Your task to perform on an android device: open the mobile data screen to see how much data has been used Image 0: 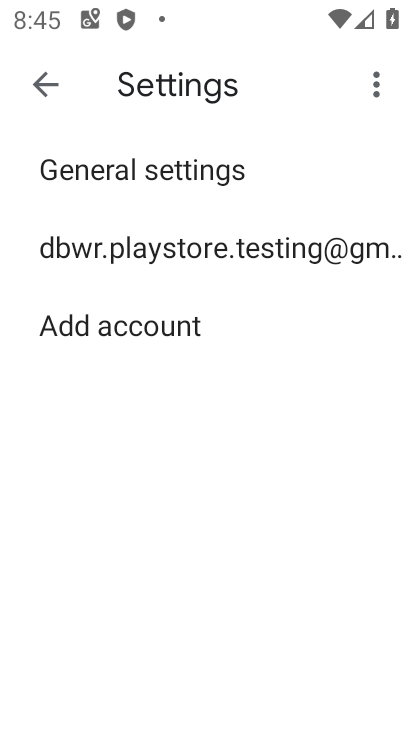
Step 0: press home button
Your task to perform on an android device: open the mobile data screen to see how much data has been used Image 1: 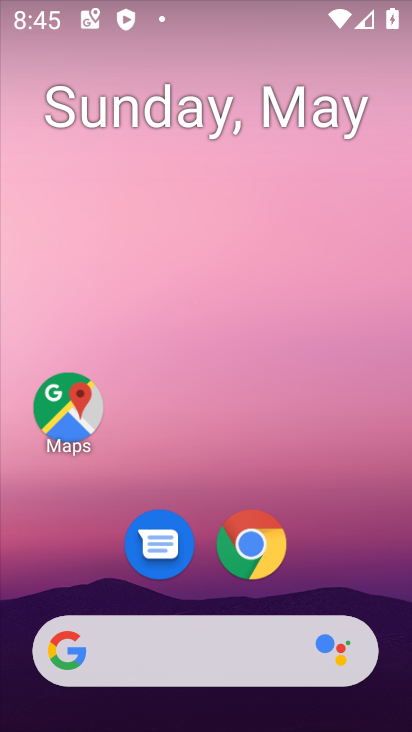
Step 1: drag from (332, 452) to (274, 17)
Your task to perform on an android device: open the mobile data screen to see how much data has been used Image 2: 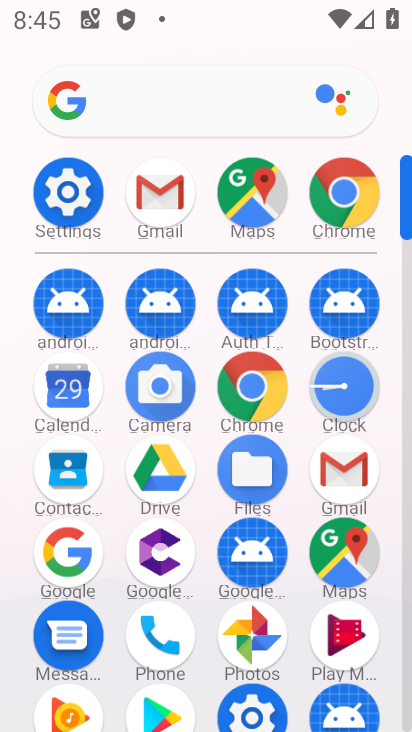
Step 2: click (55, 186)
Your task to perform on an android device: open the mobile data screen to see how much data has been used Image 3: 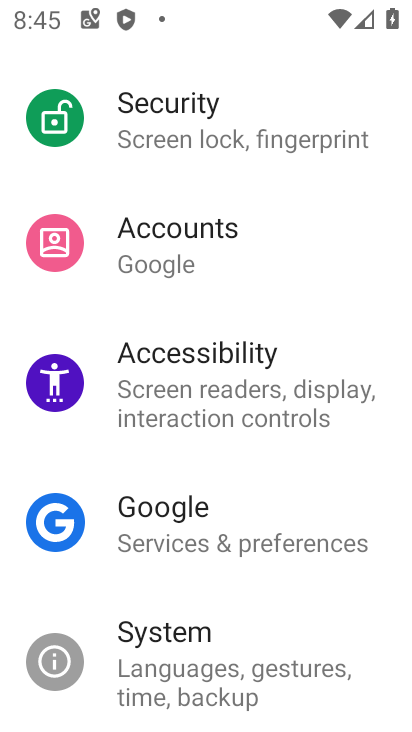
Step 3: drag from (173, 596) to (190, 652)
Your task to perform on an android device: open the mobile data screen to see how much data has been used Image 4: 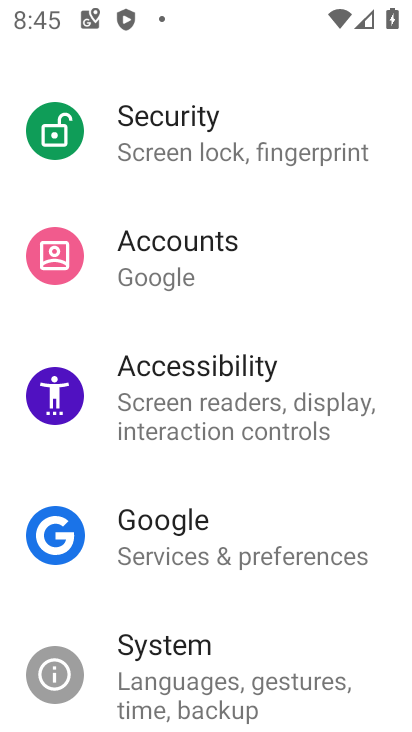
Step 4: drag from (282, 160) to (271, 712)
Your task to perform on an android device: open the mobile data screen to see how much data has been used Image 5: 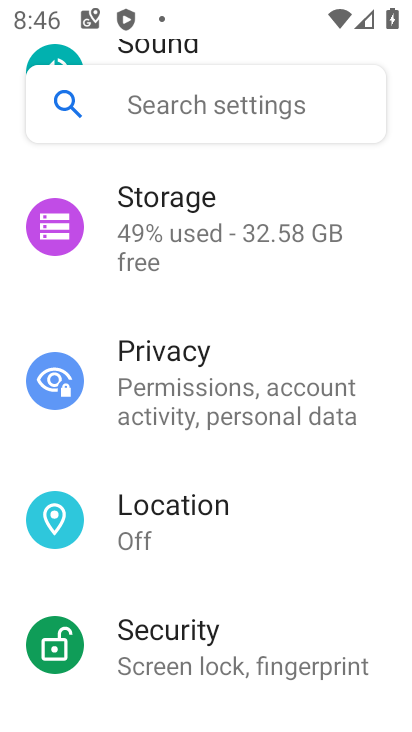
Step 5: drag from (208, 166) to (189, 697)
Your task to perform on an android device: open the mobile data screen to see how much data has been used Image 6: 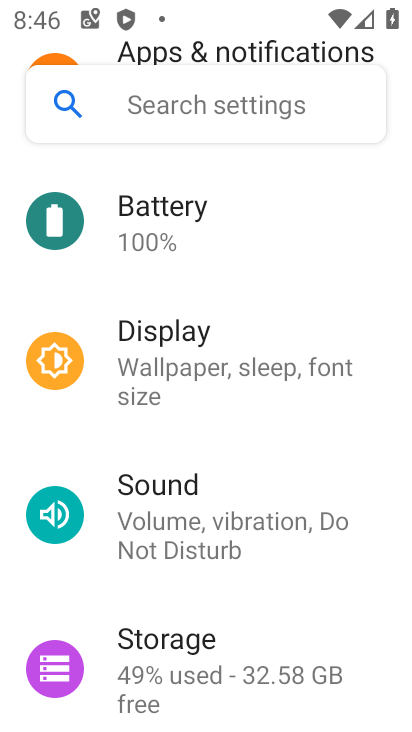
Step 6: drag from (210, 312) to (178, 691)
Your task to perform on an android device: open the mobile data screen to see how much data has been used Image 7: 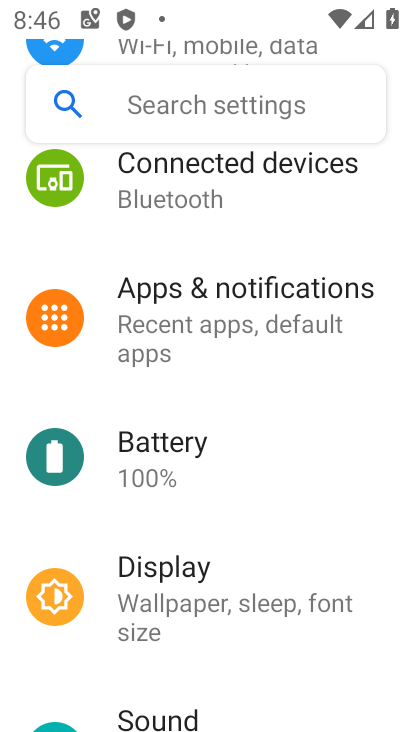
Step 7: drag from (218, 157) to (156, 656)
Your task to perform on an android device: open the mobile data screen to see how much data has been used Image 8: 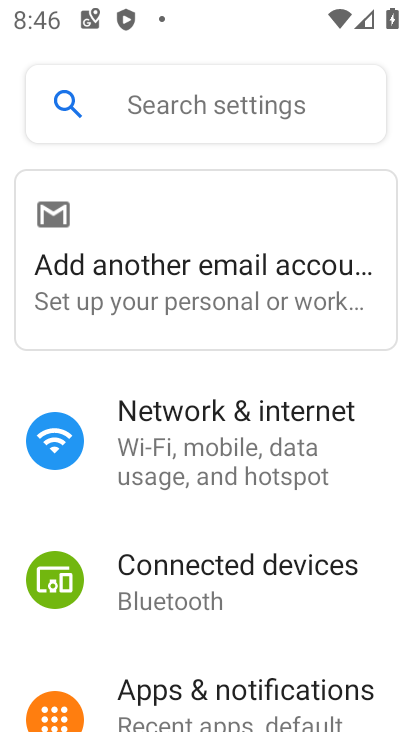
Step 8: click (184, 406)
Your task to perform on an android device: open the mobile data screen to see how much data has been used Image 9: 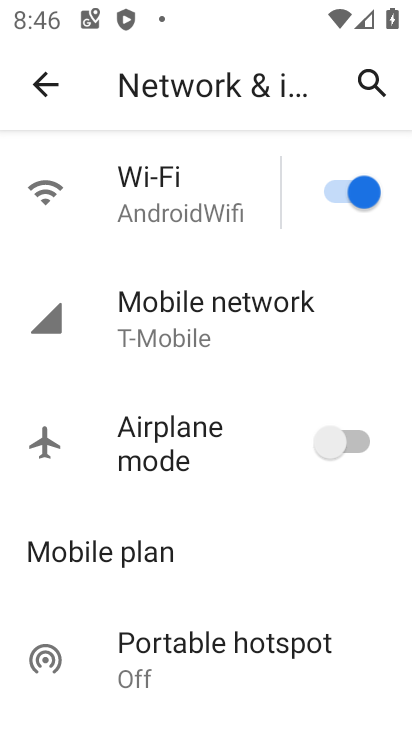
Step 9: click (165, 337)
Your task to perform on an android device: open the mobile data screen to see how much data has been used Image 10: 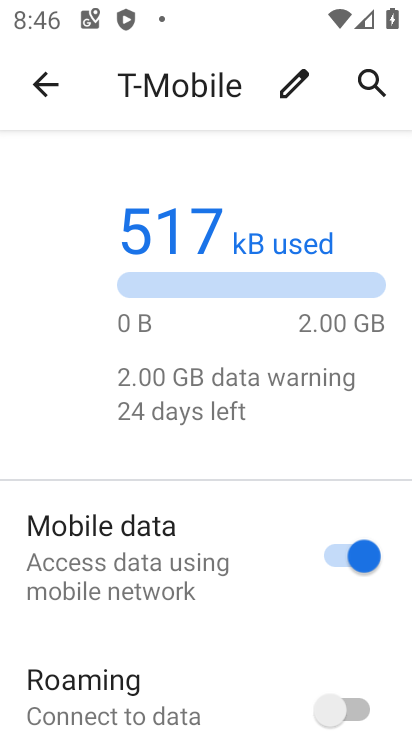
Step 10: task complete